Your task to perform on an android device: toggle notification dots Image 0: 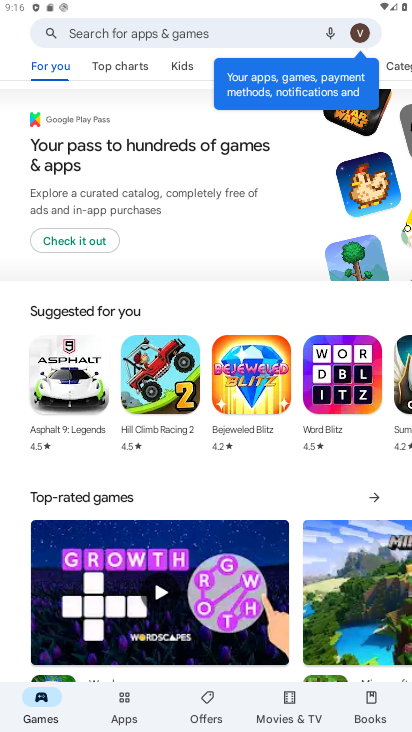
Step 0: press home button
Your task to perform on an android device: toggle notification dots Image 1: 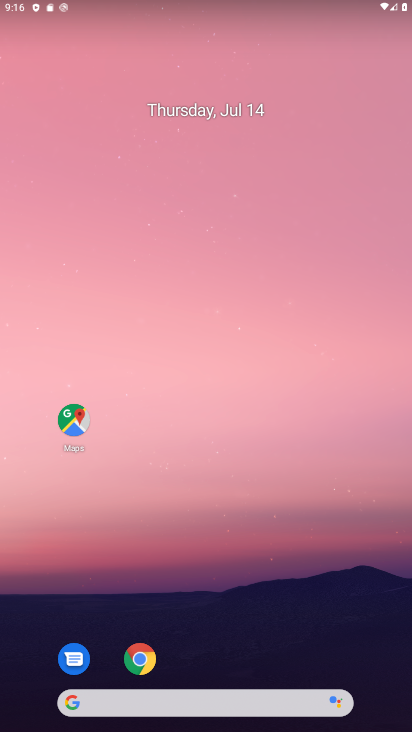
Step 1: drag from (267, 620) to (229, 6)
Your task to perform on an android device: toggle notification dots Image 2: 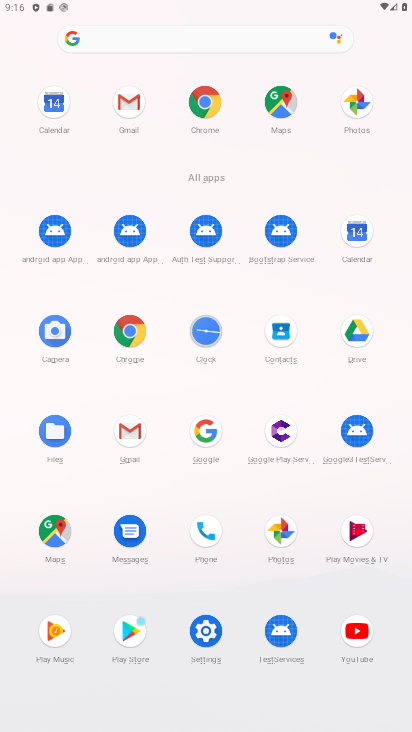
Step 2: click (201, 633)
Your task to perform on an android device: toggle notification dots Image 3: 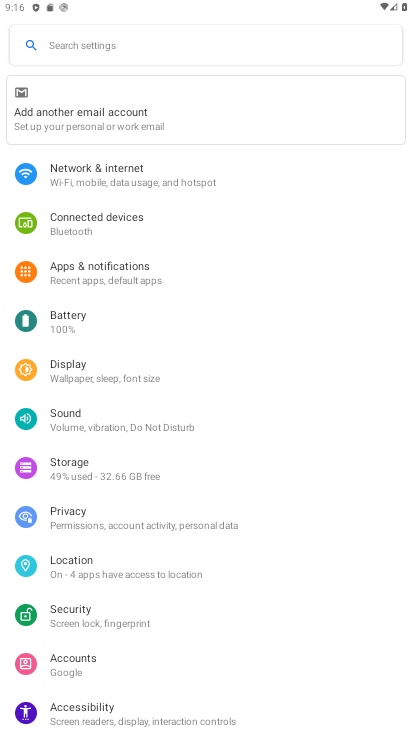
Step 3: click (119, 272)
Your task to perform on an android device: toggle notification dots Image 4: 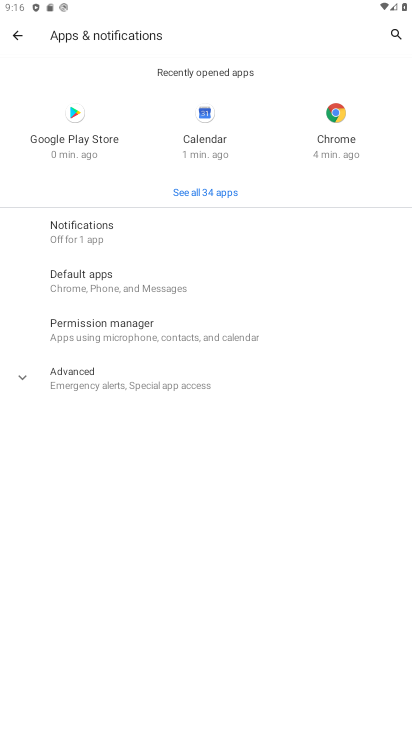
Step 4: click (112, 231)
Your task to perform on an android device: toggle notification dots Image 5: 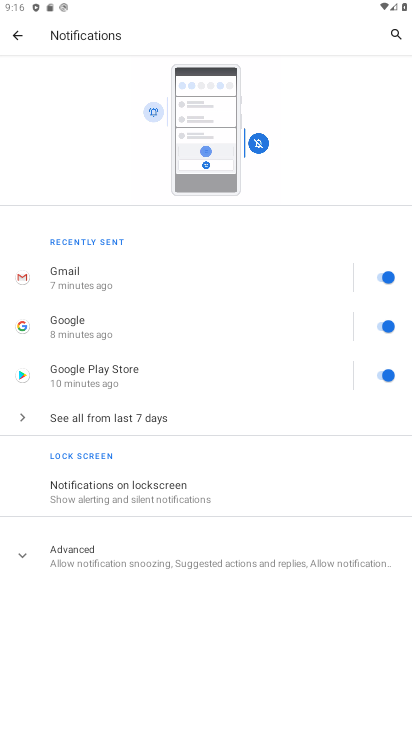
Step 5: click (138, 554)
Your task to perform on an android device: toggle notification dots Image 6: 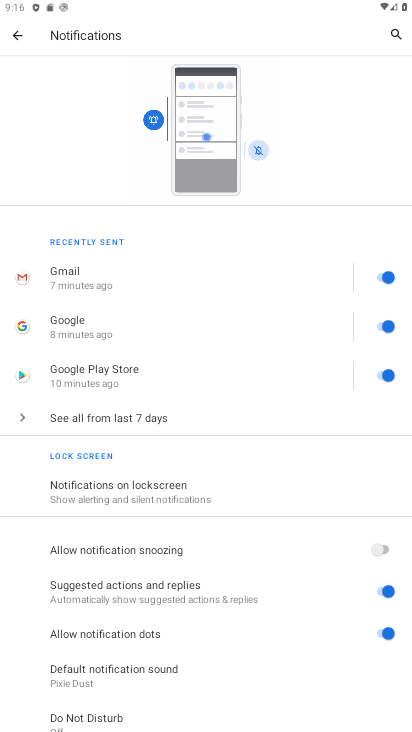
Step 6: click (377, 634)
Your task to perform on an android device: toggle notification dots Image 7: 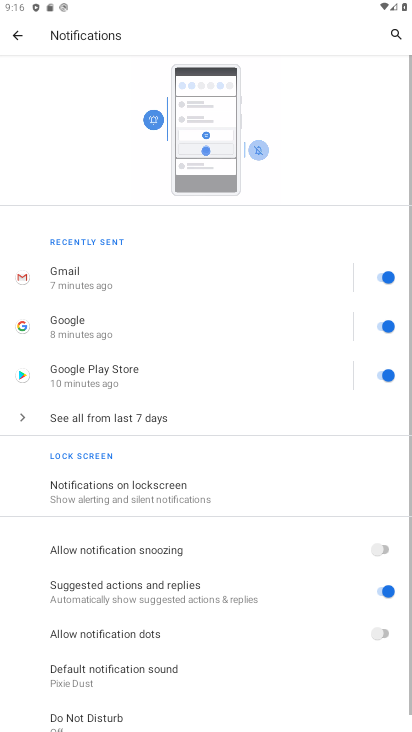
Step 7: task complete